Your task to perform on an android device: turn off wifi Image 0: 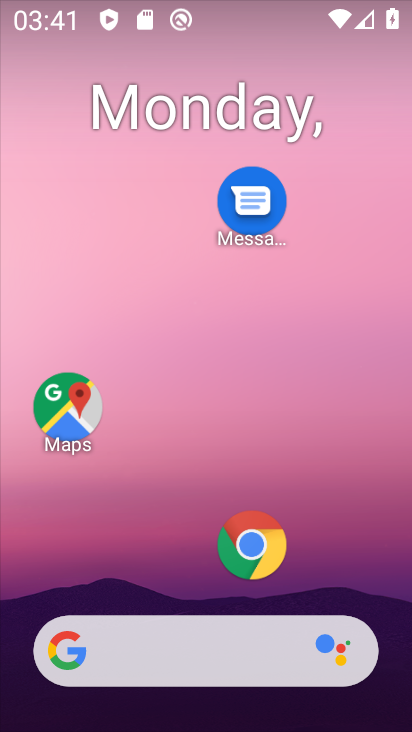
Step 0: drag from (202, 36) to (139, 556)
Your task to perform on an android device: turn off wifi Image 1: 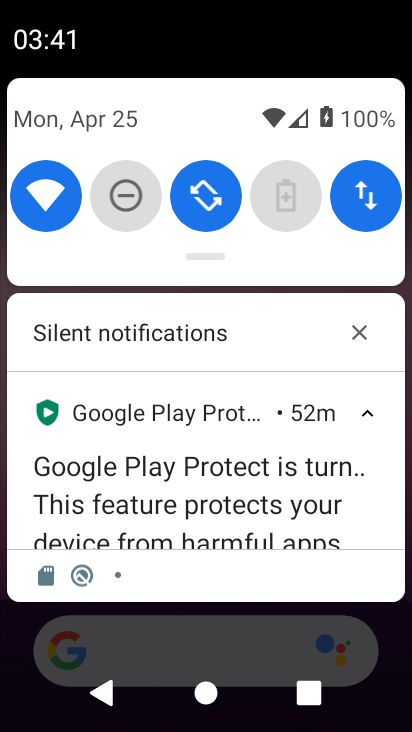
Step 1: click (45, 200)
Your task to perform on an android device: turn off wifi Image 2: 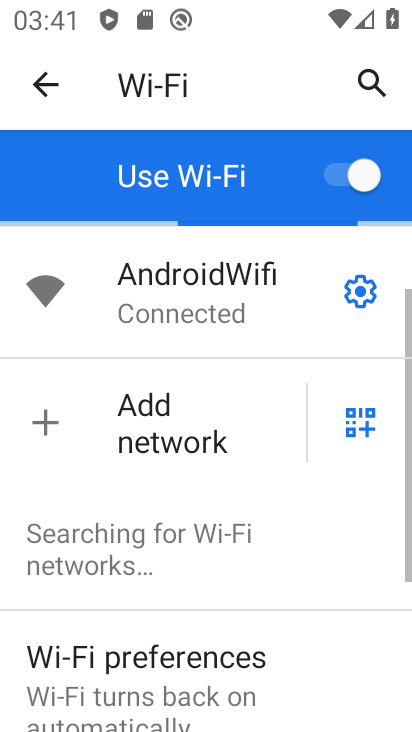
Step 2: task complete